Your task to perform on an android device: turn on wifi Image 0: 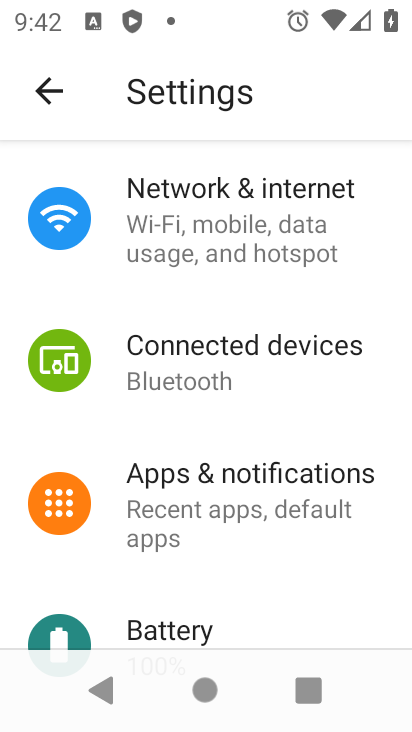
Step 0: click (307, 204)
Your task to perform on an android device: turn on wifi Image 1: 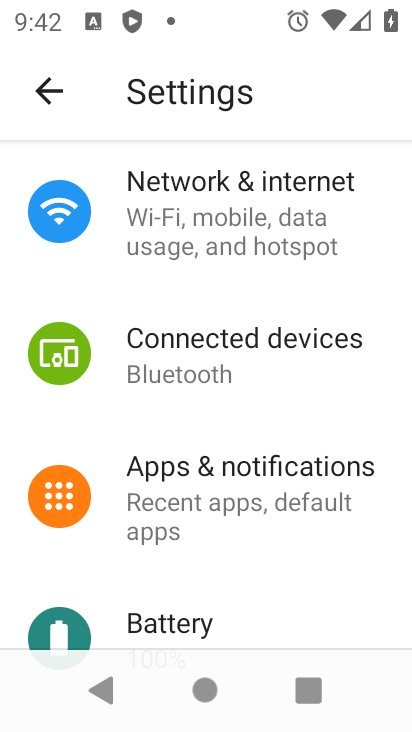
Step 1: click (307, 208)
Your task to perform on an android device: turn on wifi Image 2: 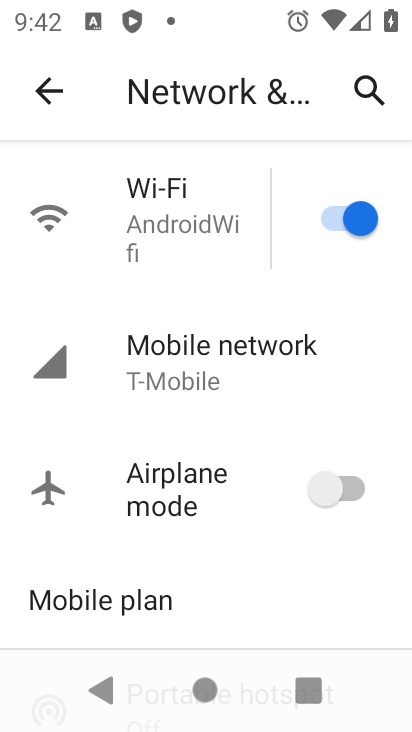
Step 2: task complete